Your task to perform on an android device: see creations saved in the google photos Image 0: 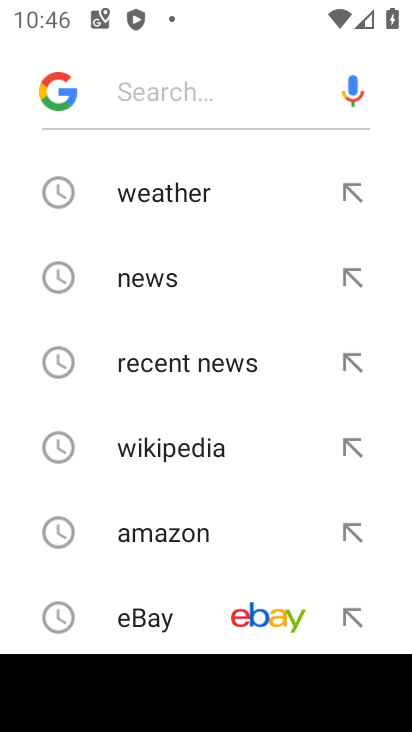
Step 0: press home button
Your task to perform on an android device: see creations saved in the google photos Image 1: 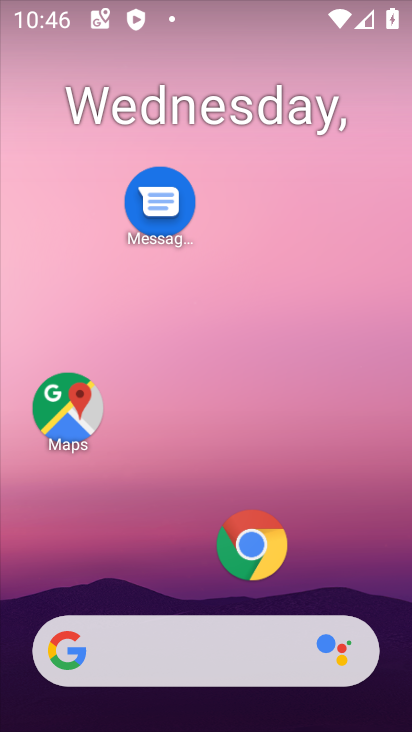
Step 1: drag from (193, 566) to (238, 203)
Your task to perform on an android device: see creations saved in the google photos Image 2: 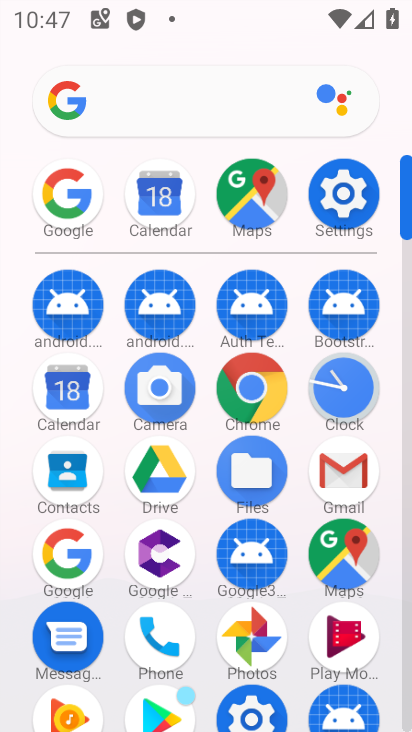
Step 2: click (252, 631)
Your task to perform on an android device: see creations saved in the google photos Image 3: 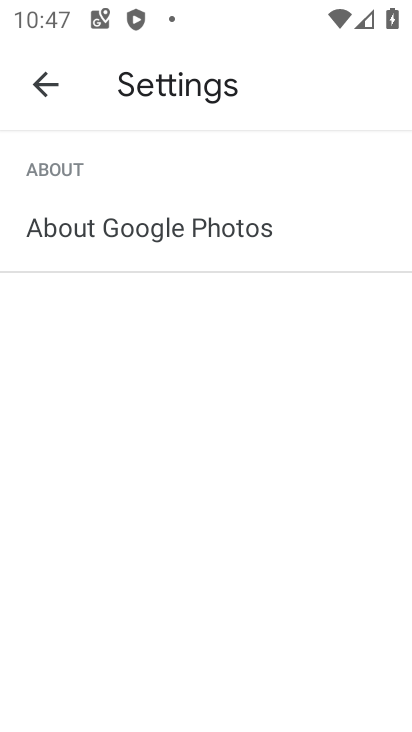
Step 3: click (37, 86)
Your task to perform on an android device: see creations saved in the google photos Image 4: 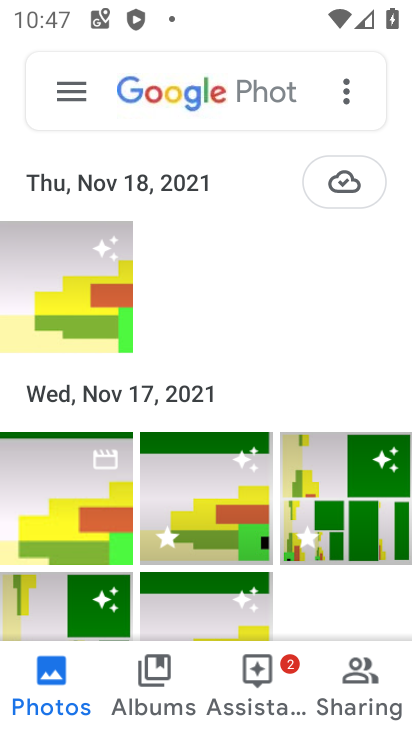
Step 4: click (207, 98)
Your task to perform on an android device: see creations saved in the google photos Image 5: 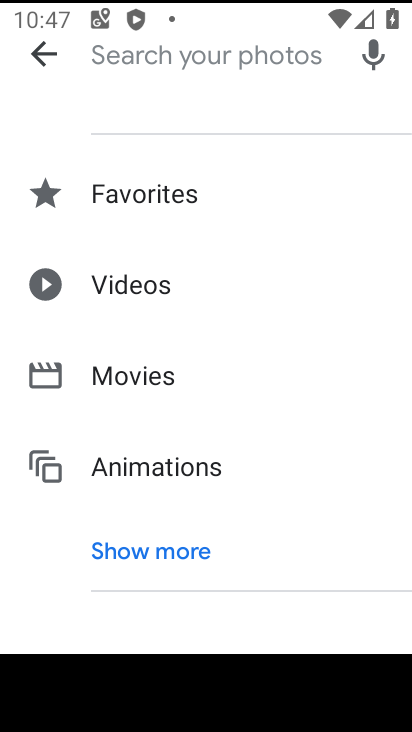
Step 5: click (197, 545)
Your task to perform on an android device: see creations saved in the google photos Image 6: 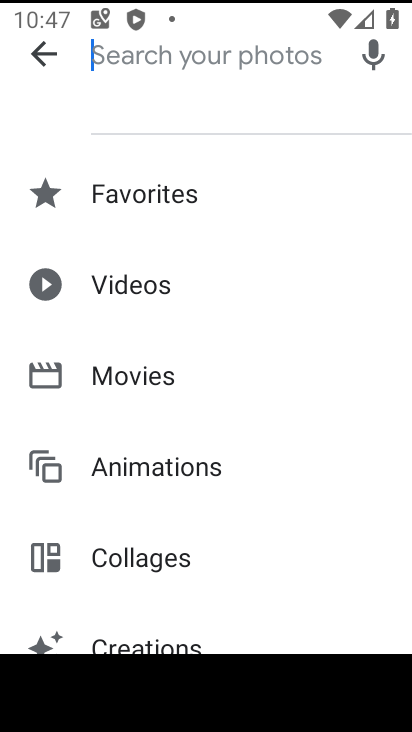
Step 6: drag from (182, 566) to (233, 378)
Your task to perform on an android device: see creations saved in the google photos Image 7: 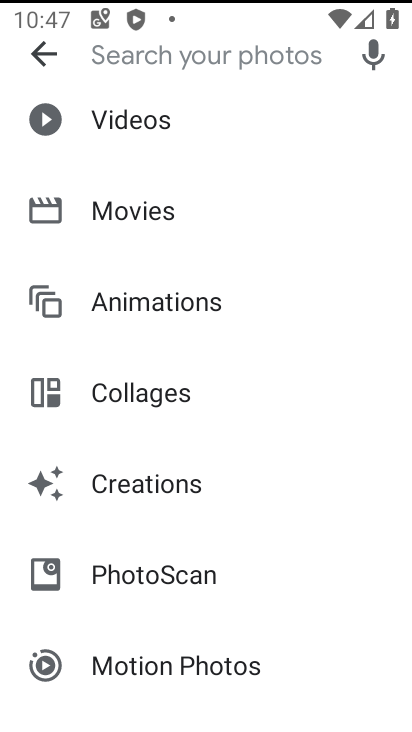
Step 7: click (153, 489)
Your task to perform on an android device: see creations saved in the google photos Image 8: 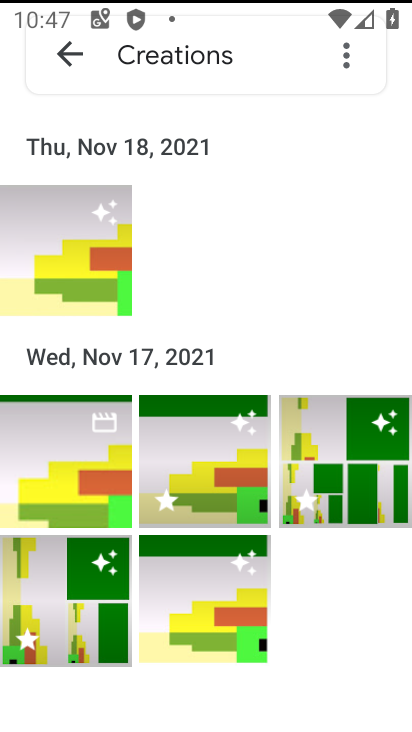
Step 8: task complete